Your task to perform on an android device: Open Maps and search for coffee Image 0: 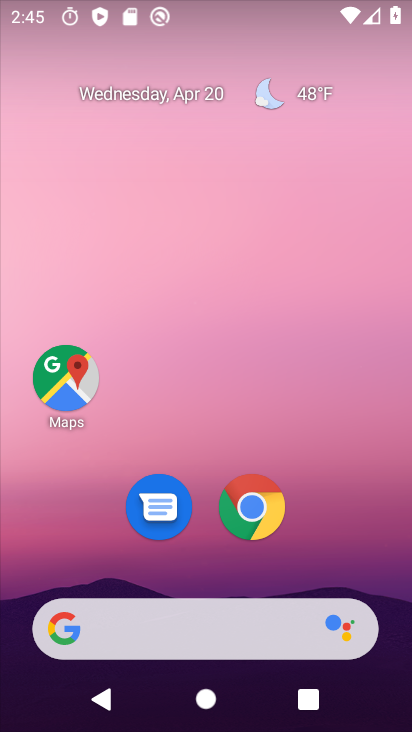
Step 0: click (77, 398)
Your task to perform on an android device: Open Maps and search for coffee Image 1: 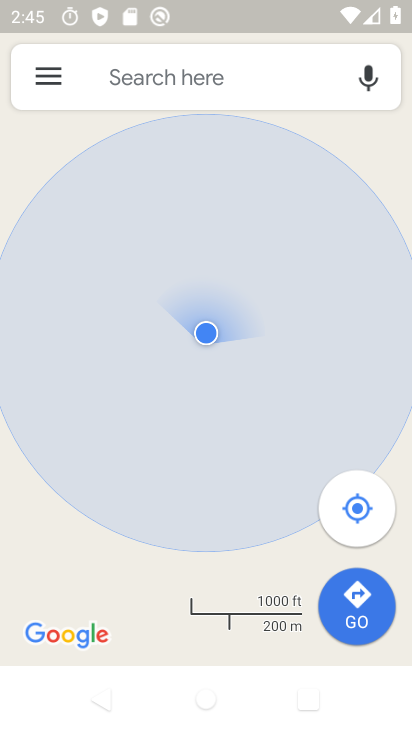
Step 1: click (199, 73)
Your task to perform on an android device: Open Maps and search for coffee Image 2: 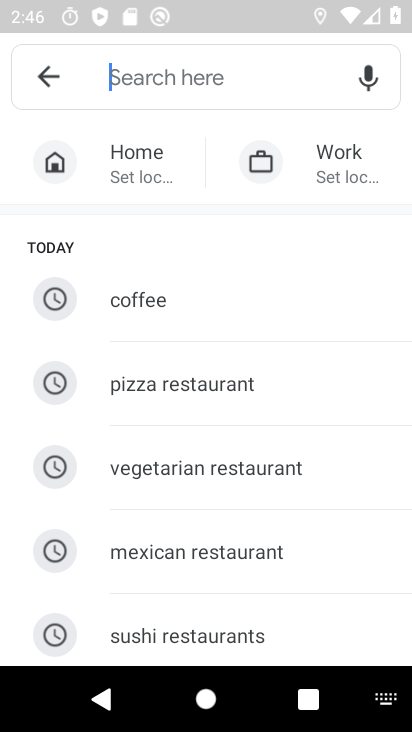
Step 2: type "coffee"
Your task to perform on an android device: Open Maps and search for coffee Image 3: 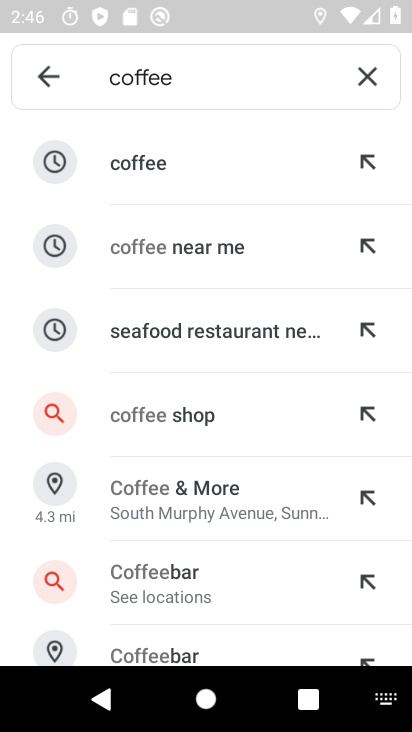
Step 3: click (148, 160)
Your task to perform on an android device: Open Maps and search for coffee Image 4: 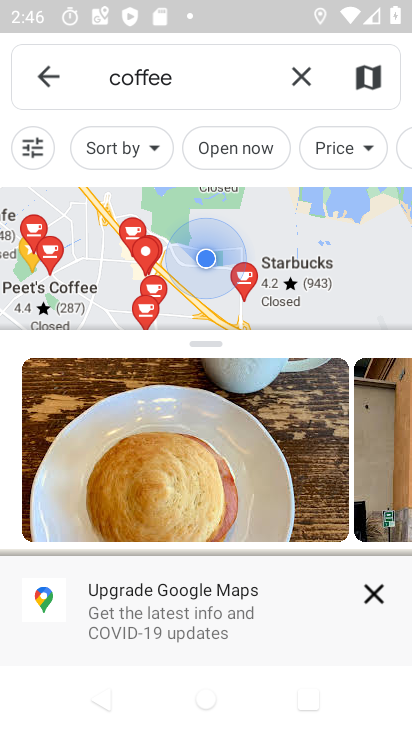
Step 4: task complete